Your task to perform on an android device: toggle priority inbox in the gmail app Image 0: 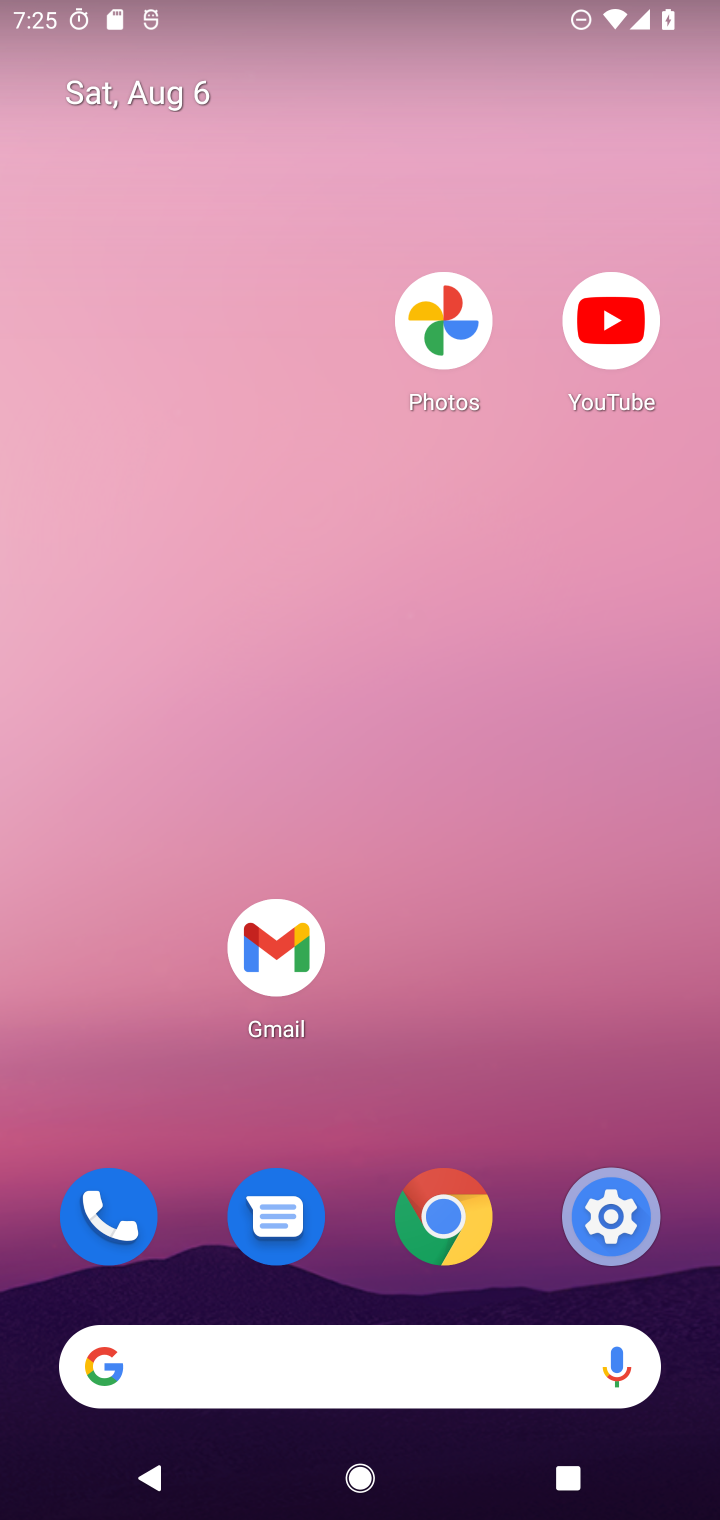
Step 0: drag from (521, 728) to (542, 25)
Your task to perform on an android device: toggle priority inbox in the gmail app Image 1: 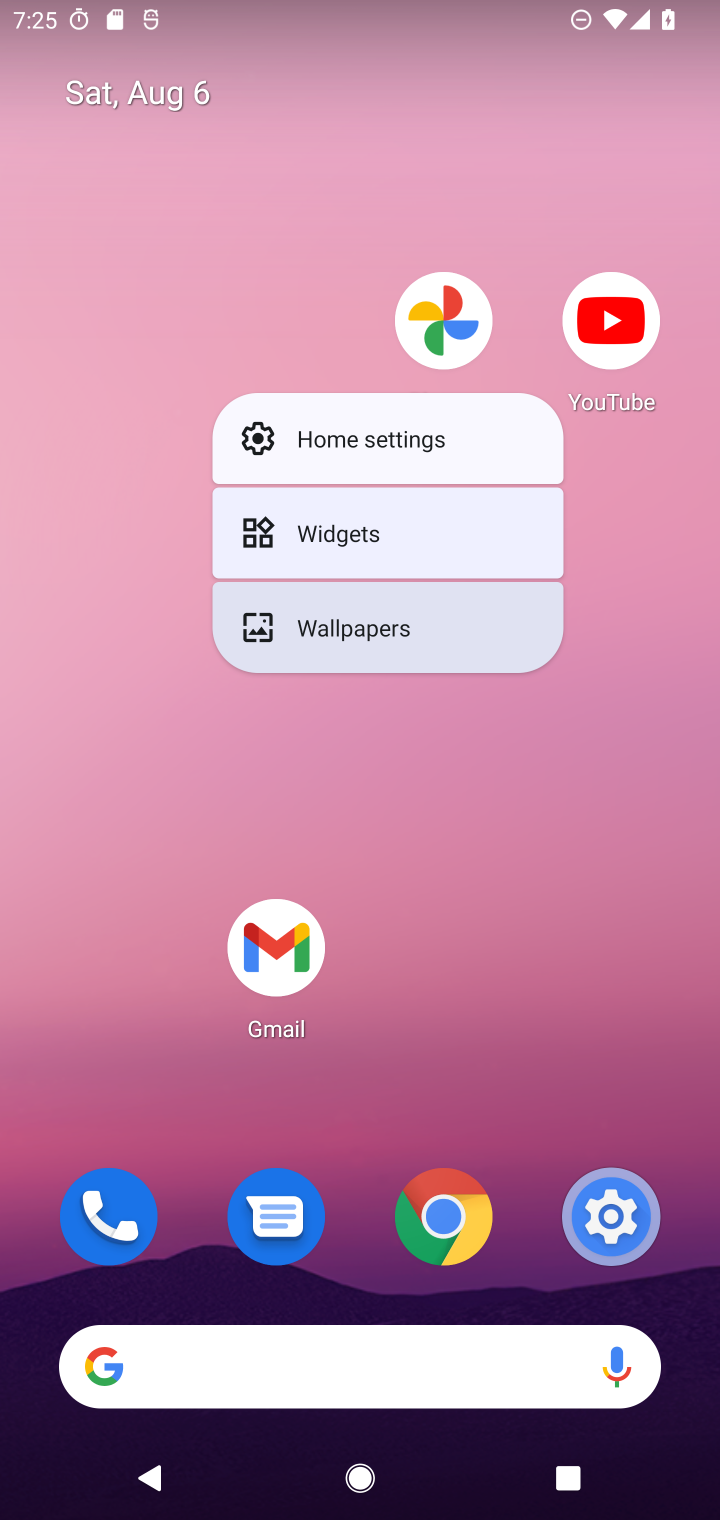
Step 1: click (497, 917)
Your task to perform on an android device: toggle priority inbox in the gmail app Image 2: 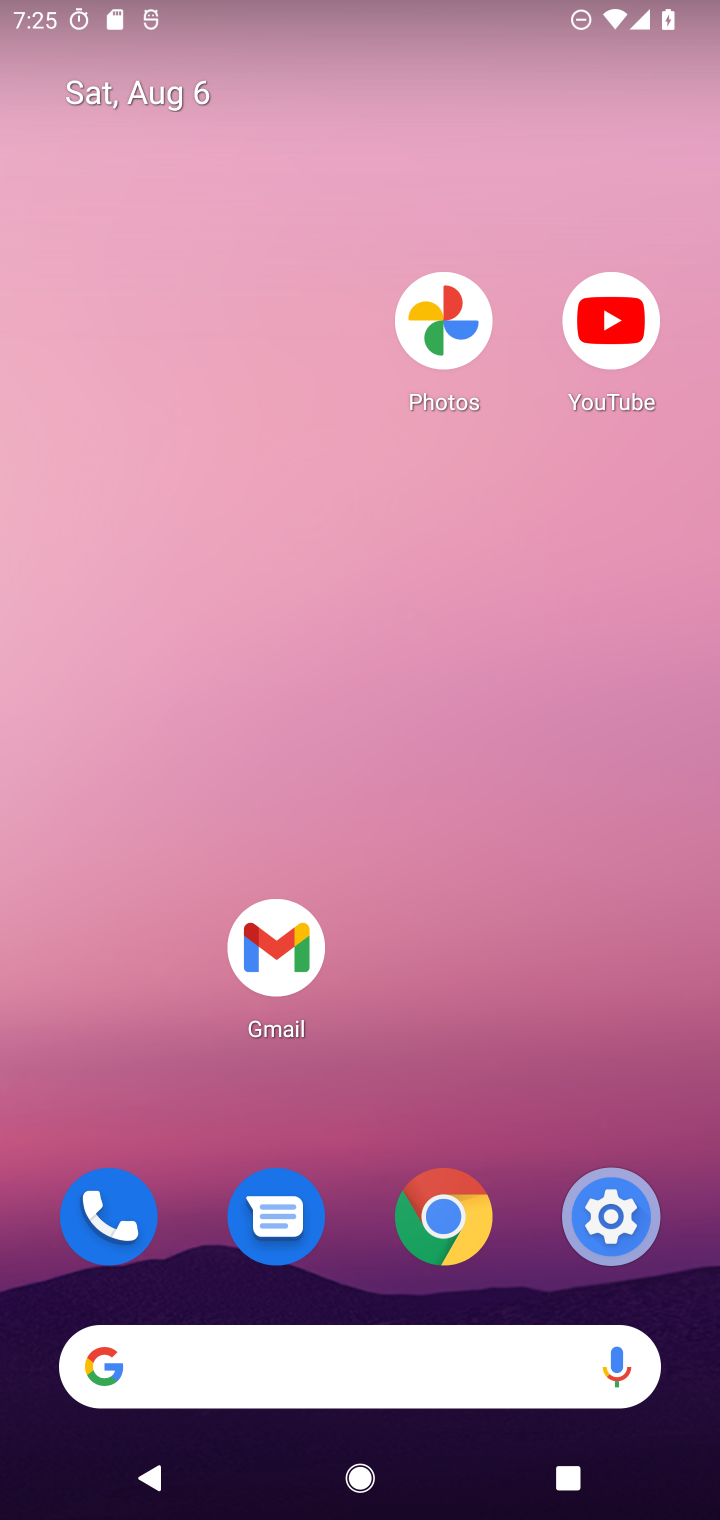
Step 2: drag from (343, 1288) to (490, 222)
Your task to perform on an android device: toggle priority inbox in the gmail app Image 3: 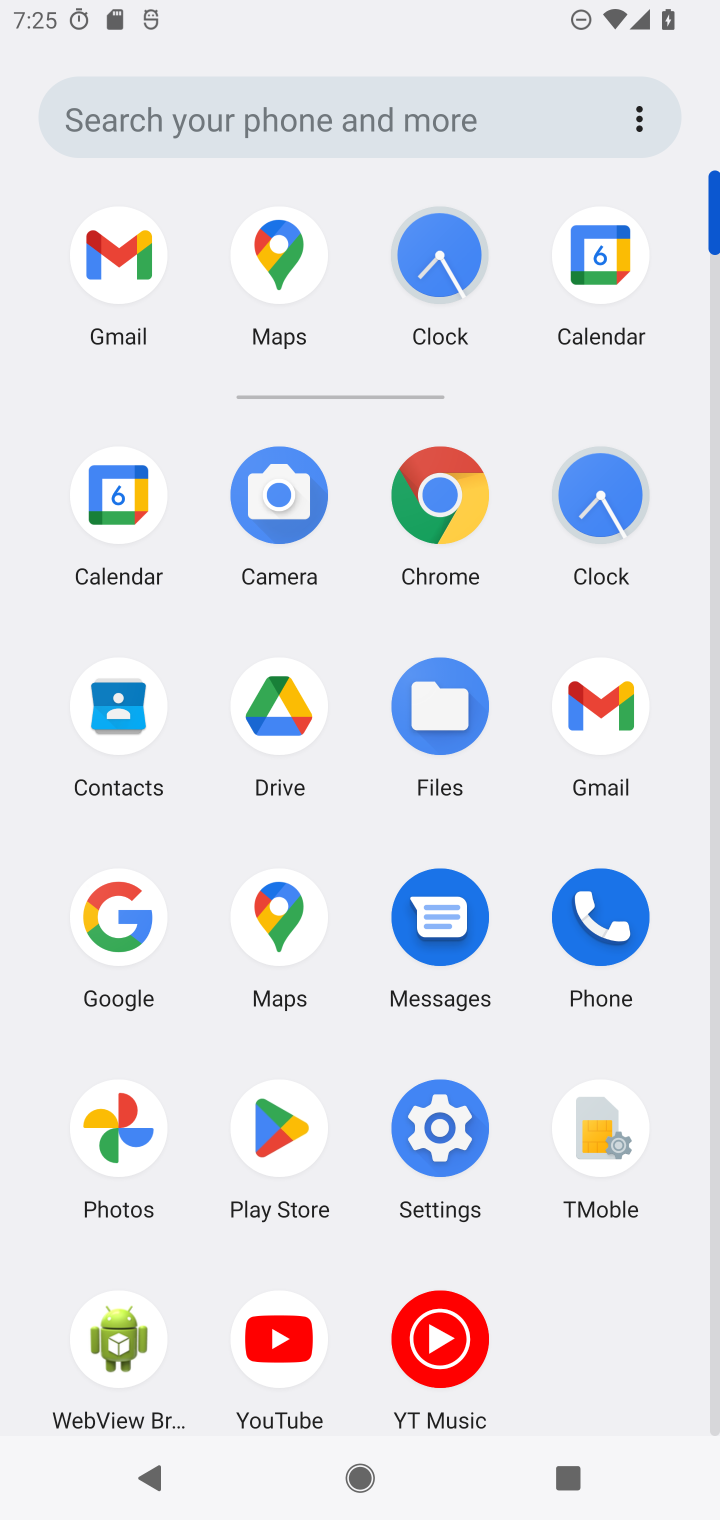
Step 3: click (619, 726)
Your task to perform on an android device: toggle priority inbox in the gmail app Image 4: 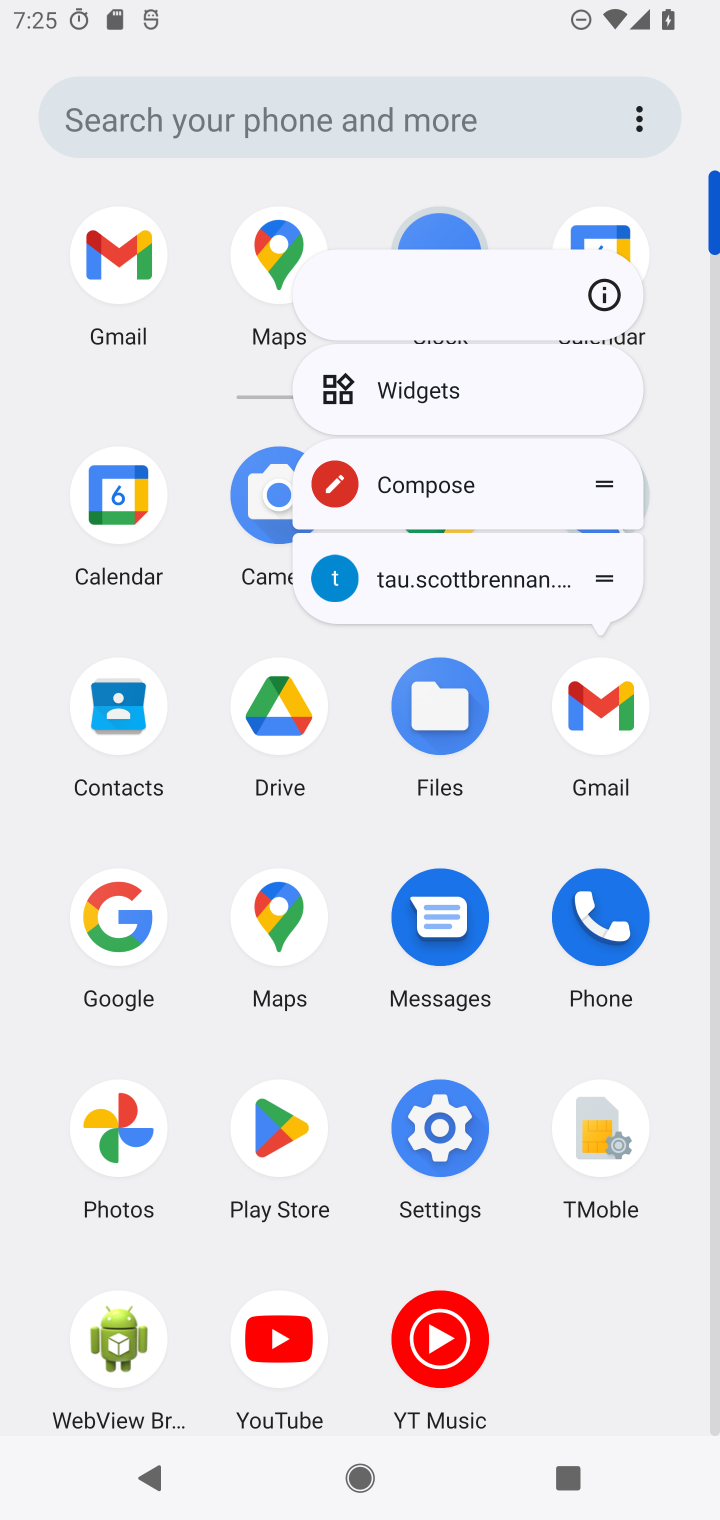
Step 4: click (670, 816)
Your task to perform on an android device: toggle priority inbox in the gmail app Image 5: 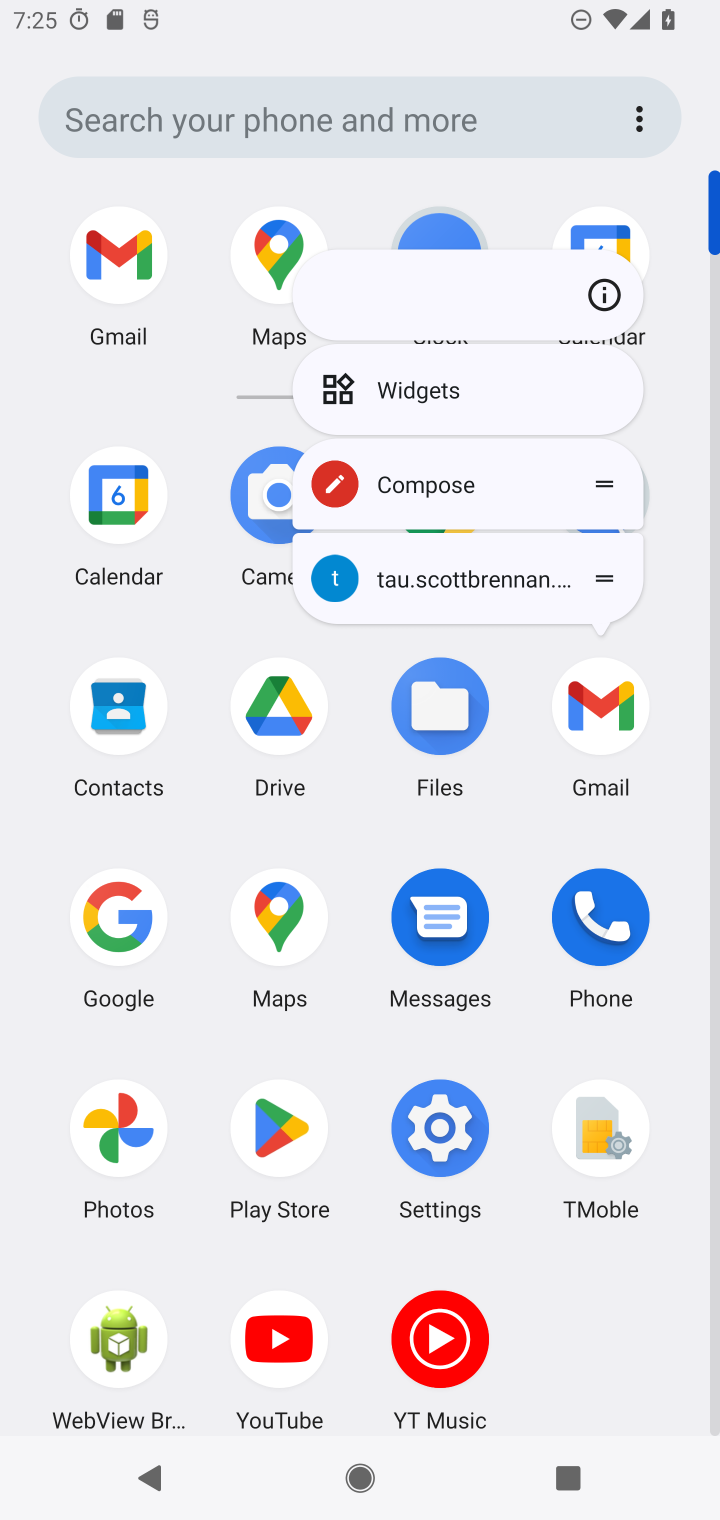
Step 5: click (615, 709)
Your task to perform on an android device: toggle priority inbox in the gmail app Image 6: 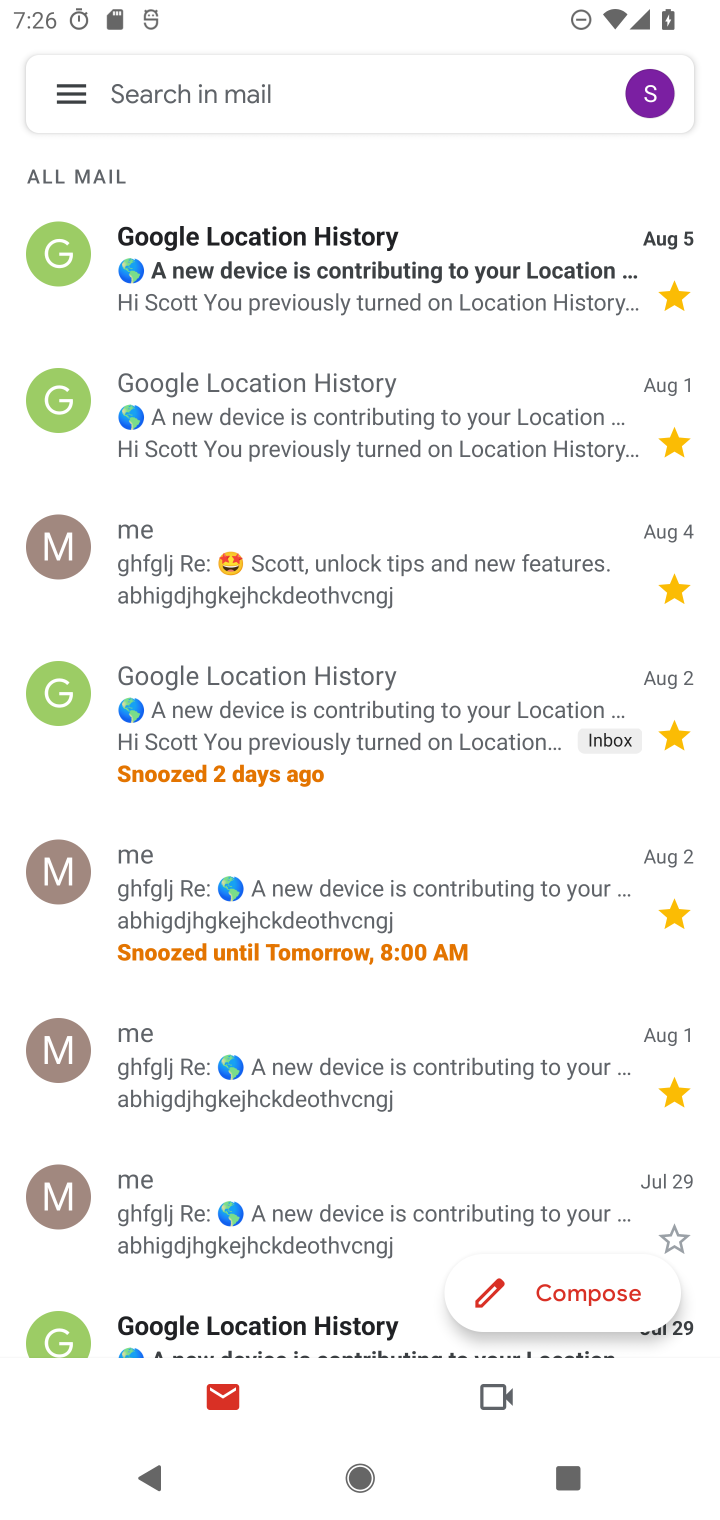
Step 6: click (66, 88)
Your task to perform on an android device: toggle priority inbox in the gmail app Image 7: 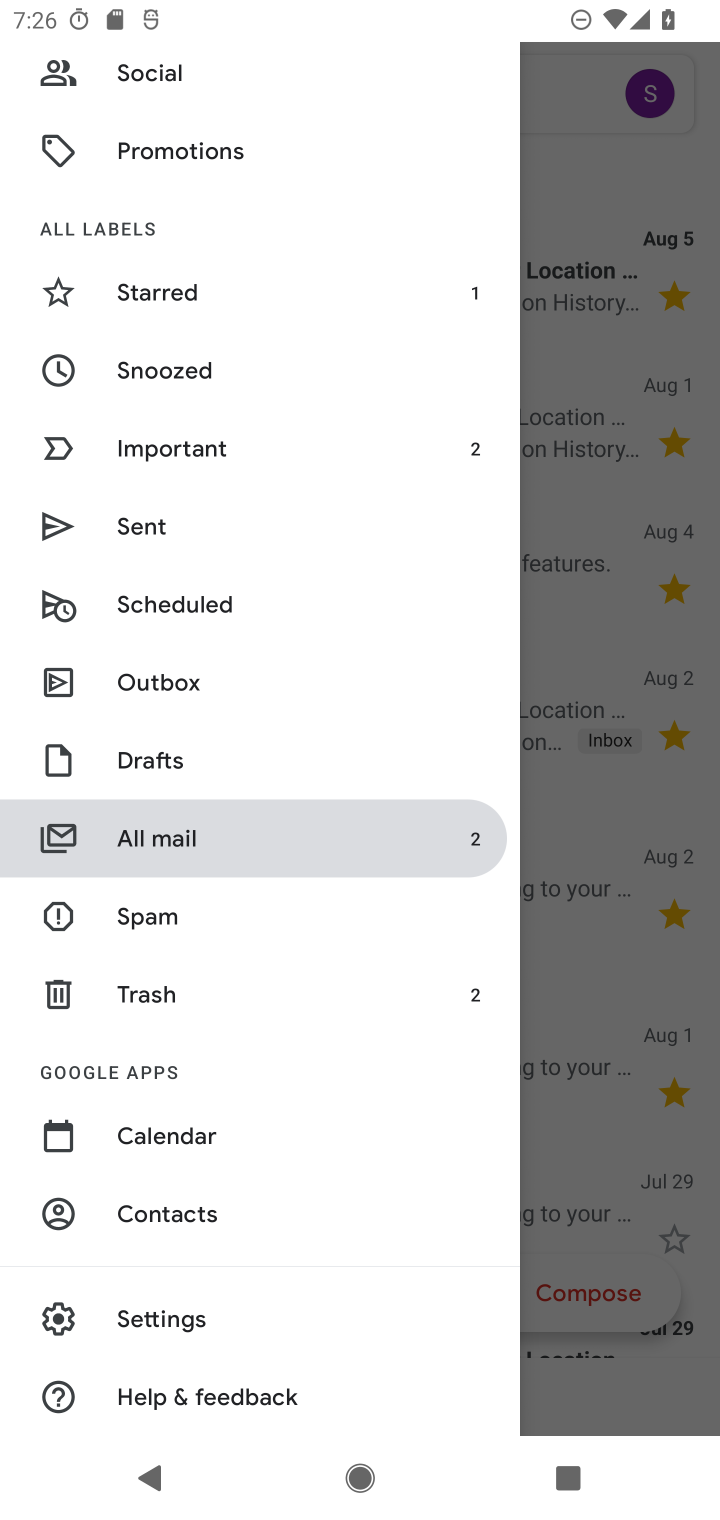
Step 7: click (152, 1321)
Your task to perform on an android device: toggle priority inbox in the gmail app Image 8: 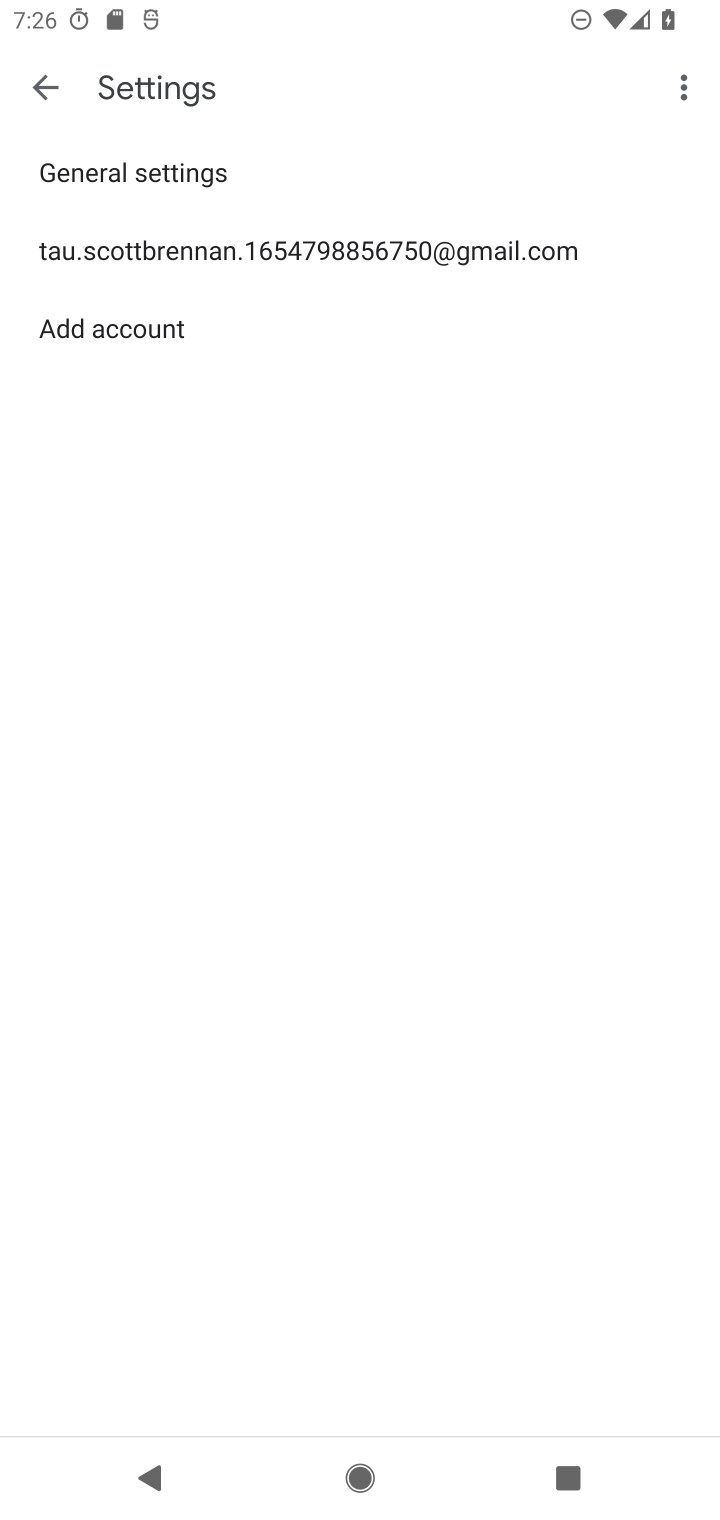
Step 8: click (427, 243)
Your task to perform on an android device: toggle priority inbox in the gmail app Image 9: 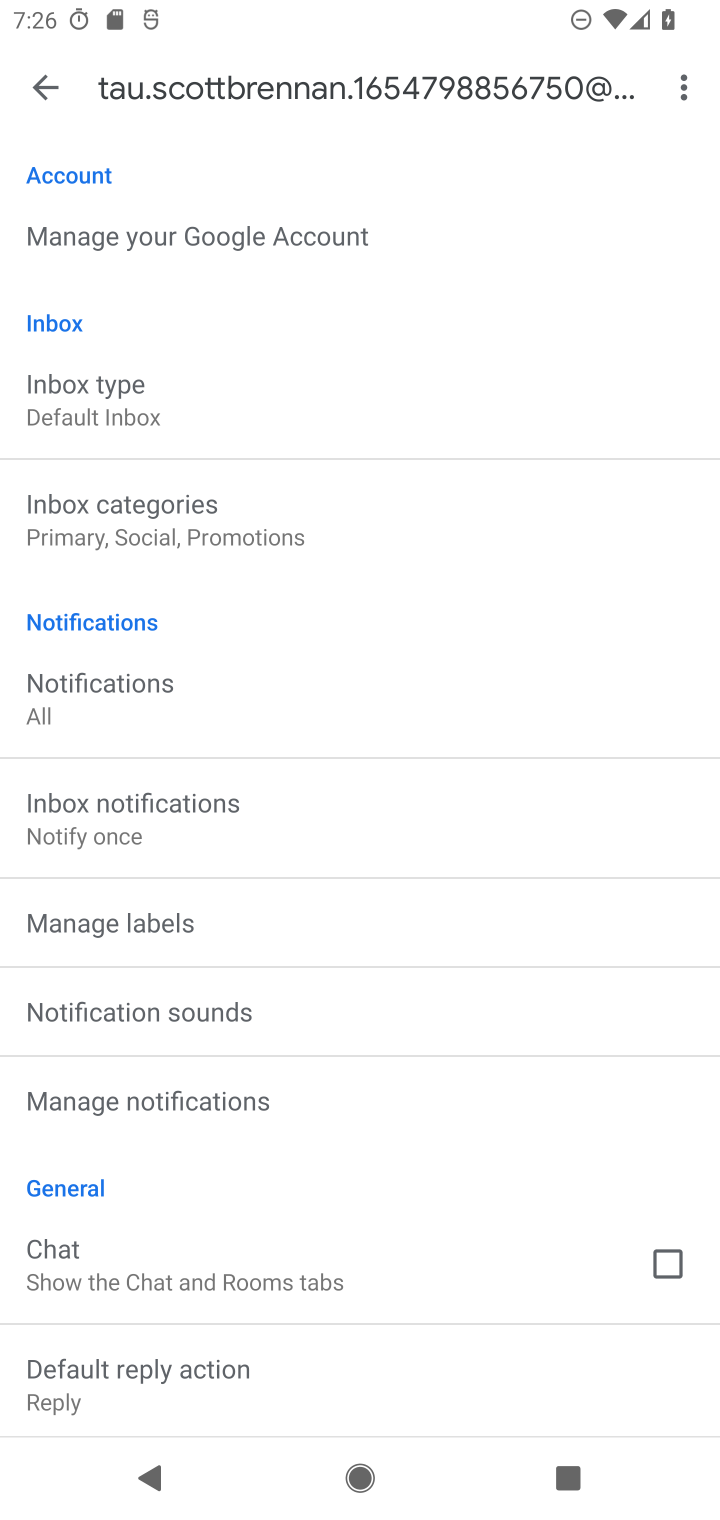
Step 9: click (132, 390)
Your task to perform on an android device: toggle priority inbox in the gmail app Image 10: 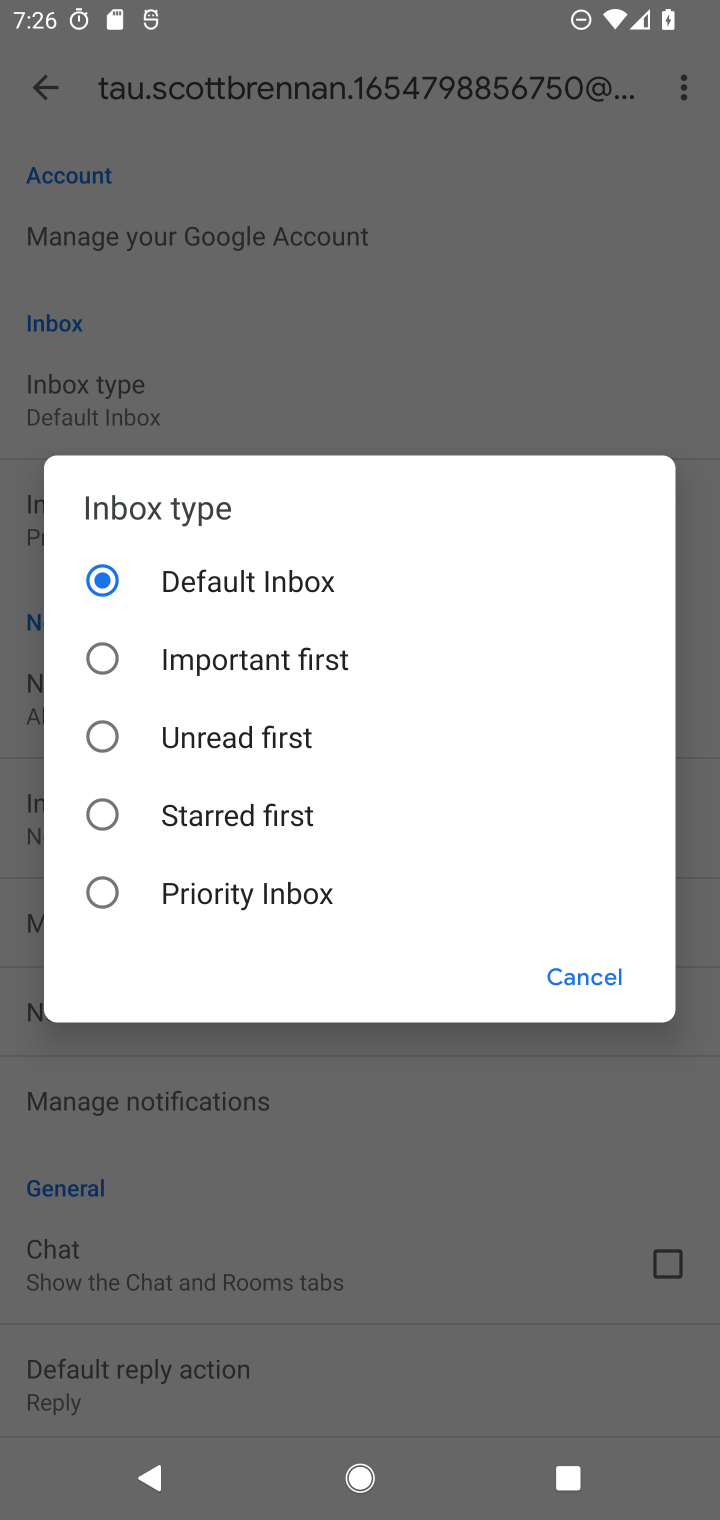
Step 10: click (240, 886)
Your task to perform on an android device: toggle priority inbox in the gmail app Image 11: 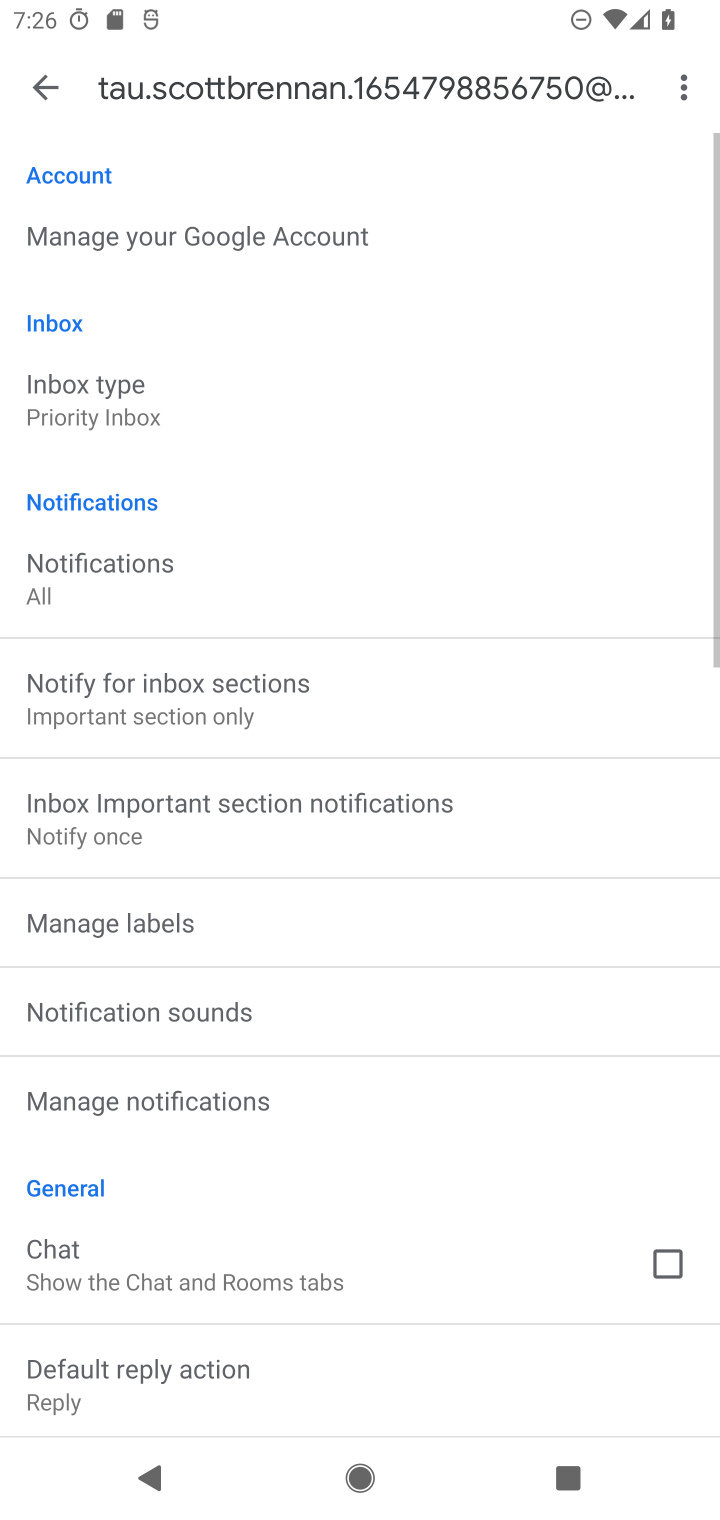
Step 11: task complete